Your task to perform on an android device: change the clock display to show seconds Image 0: 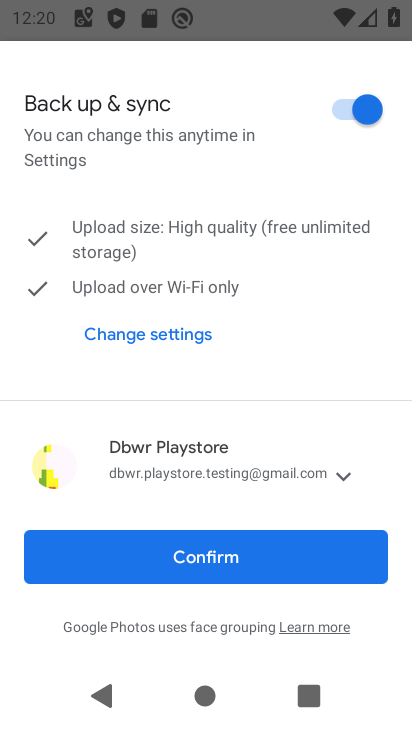
Step 0: click (222, 572)
Your task to perform on an android device: change the clock display to show seconds Image 1: 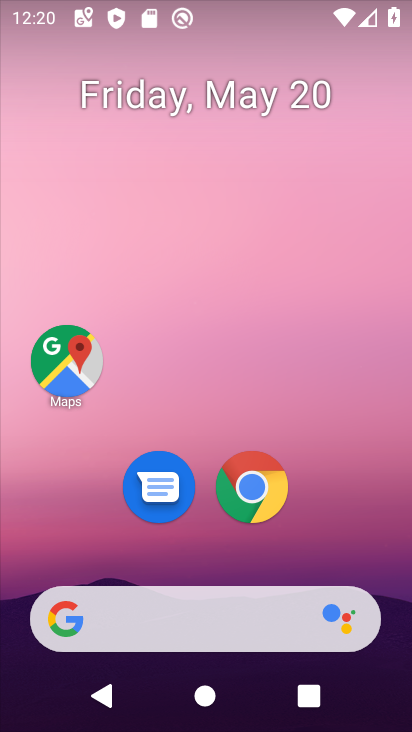
Step 1: drag from (228, 582) to (294, 29)
Your task to perform on an android device: change the clock display to show seconds Image 2: 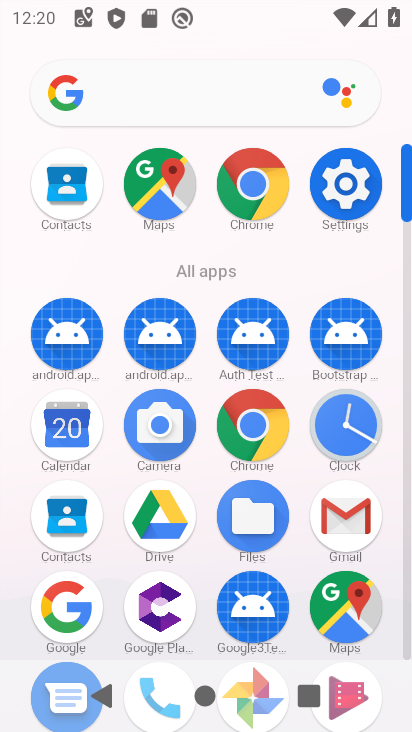
Step 2: click (347, 418)
Your task to perform on an android device: change the clock display to show seconds Image 3: 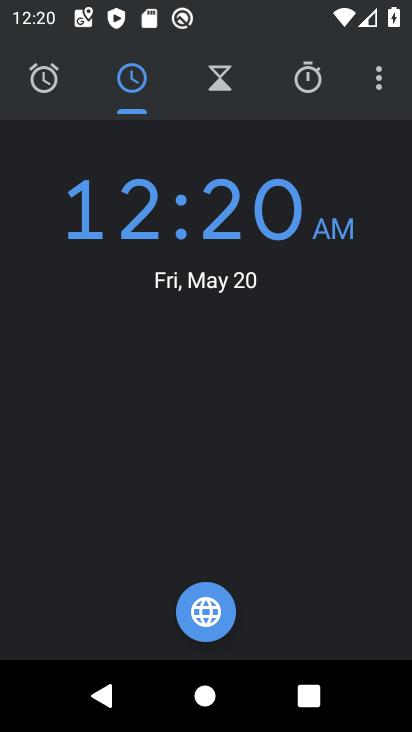
Step 3: click (377, 77)
Your task to perform on an android device: change the clock display to show seconds Image 4: 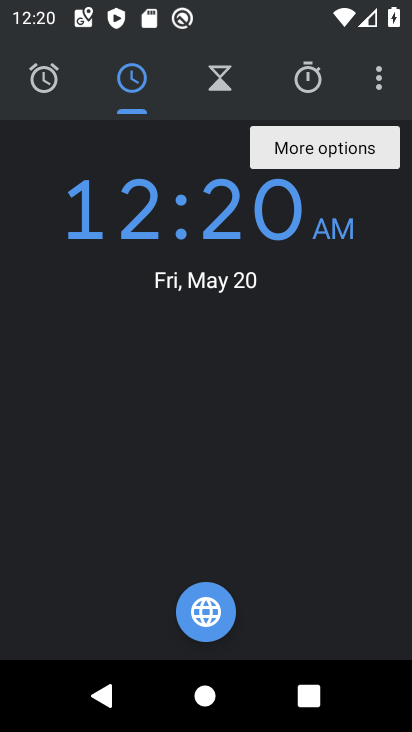
Step 4: click (377, 77)
Your task to perform on an android device: change the clock display to show seconds Image 5: 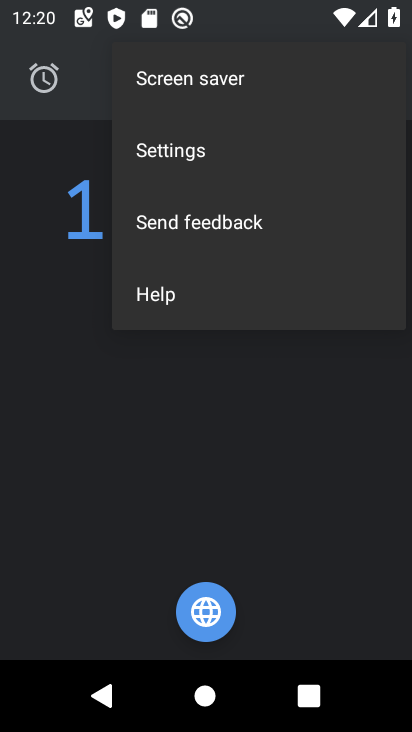
Step 5: click (175, 154)
Your task to perform on an android device: change the clock display to show seconds Image 6: 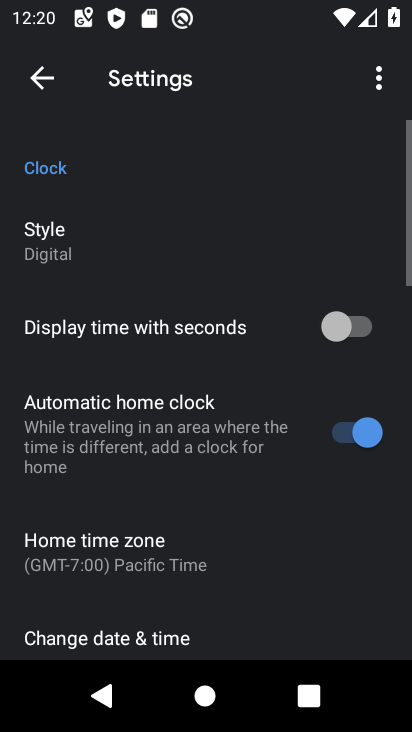
Step 6: click (349, 330)
Your task to perform on an android device: change the clock display to show seconds Image 7: 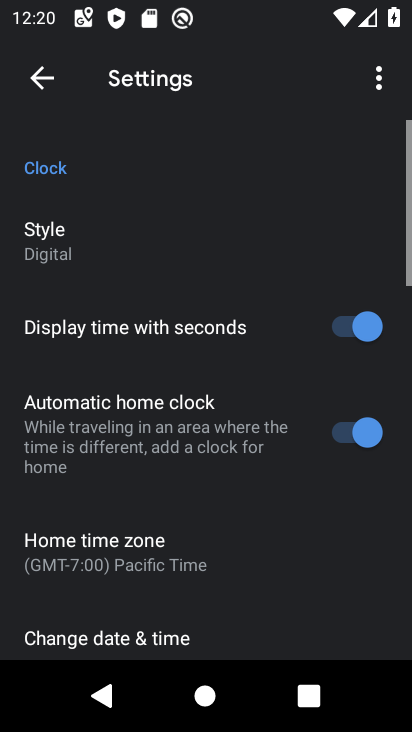
Step 7: task complete